Your task to perform on an android device: install app "Booking.com: Hotels and more" Image 0: 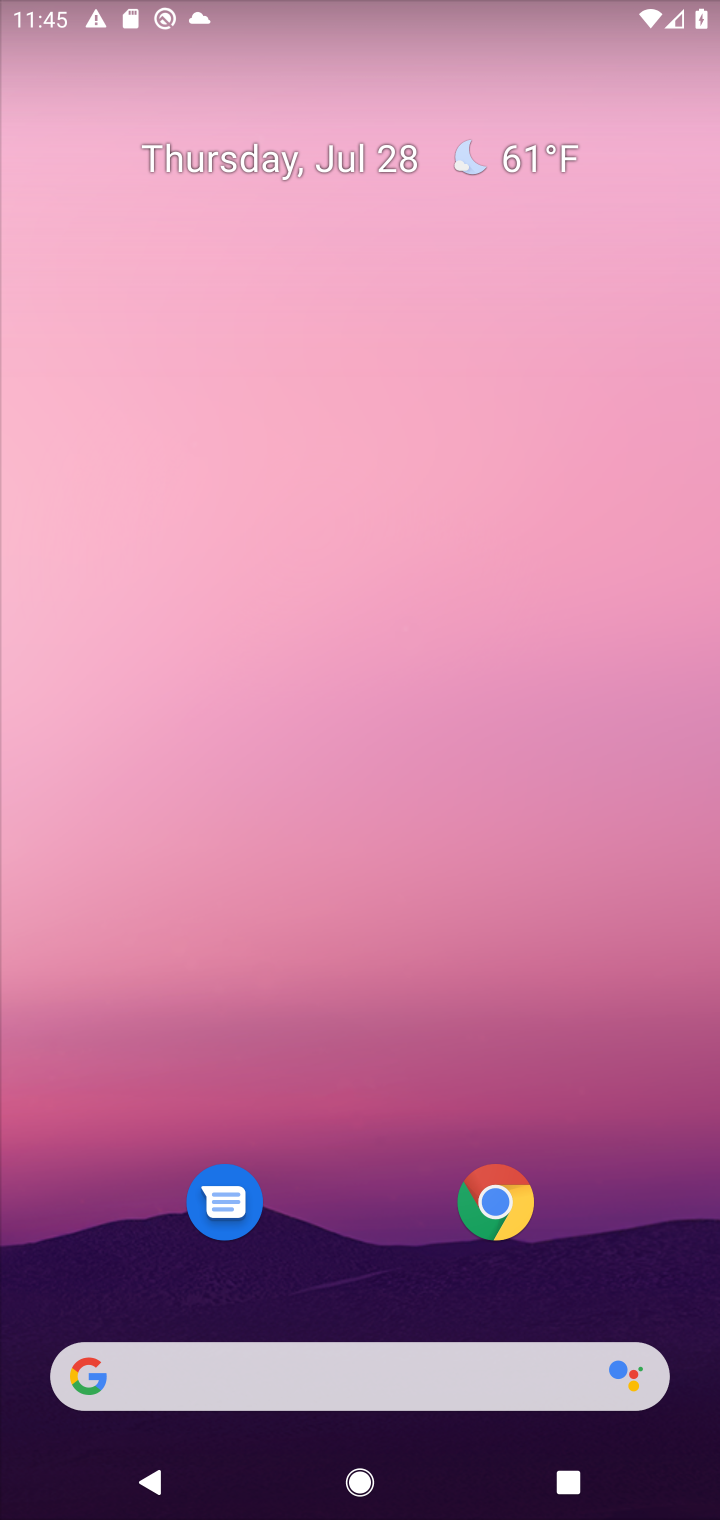
Step 0: click (401, 1364)
Your task to perform on an android device: install app "Booking.com: Hotels and more" Image 1: 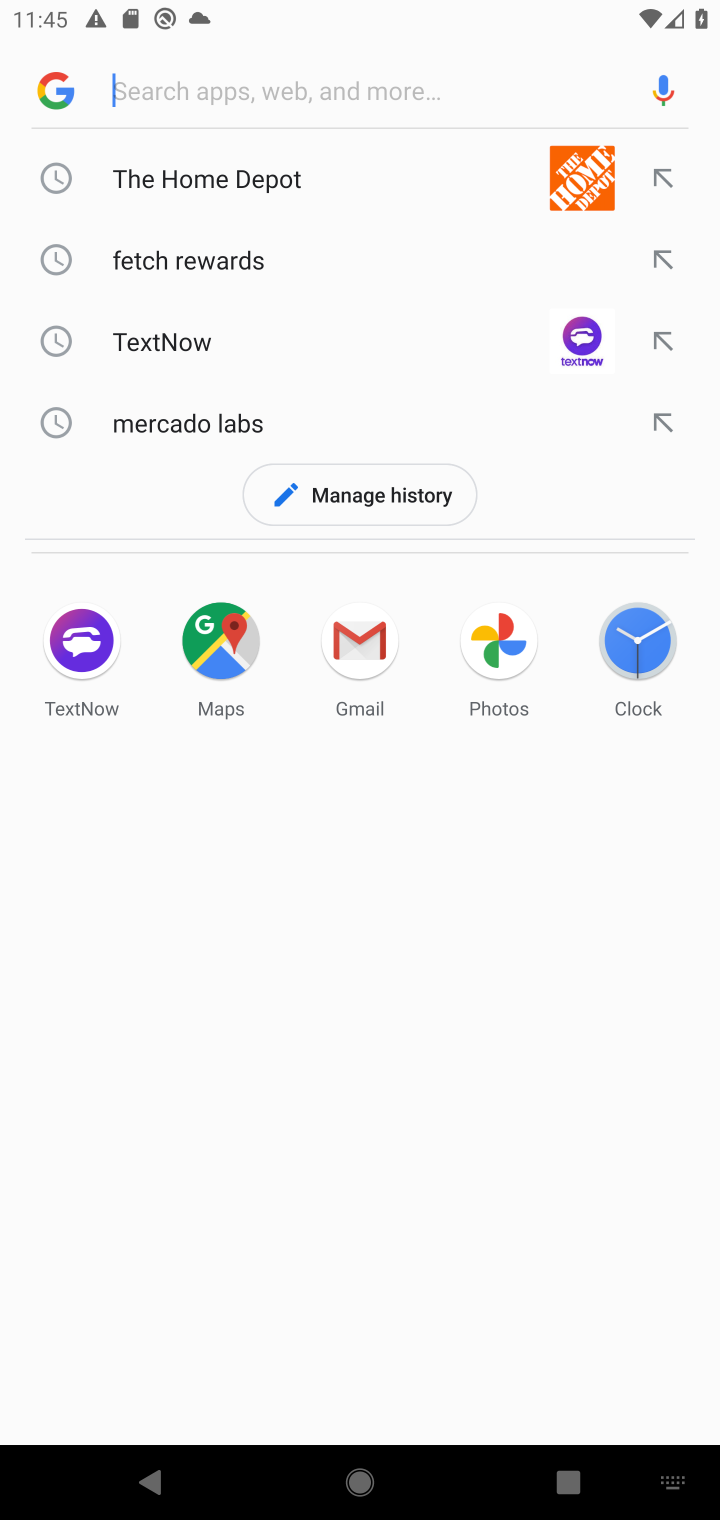
Step 1: type "booking"
Your task to perform on an android device: install app "Booking.com: Hotels and more" Image 2: 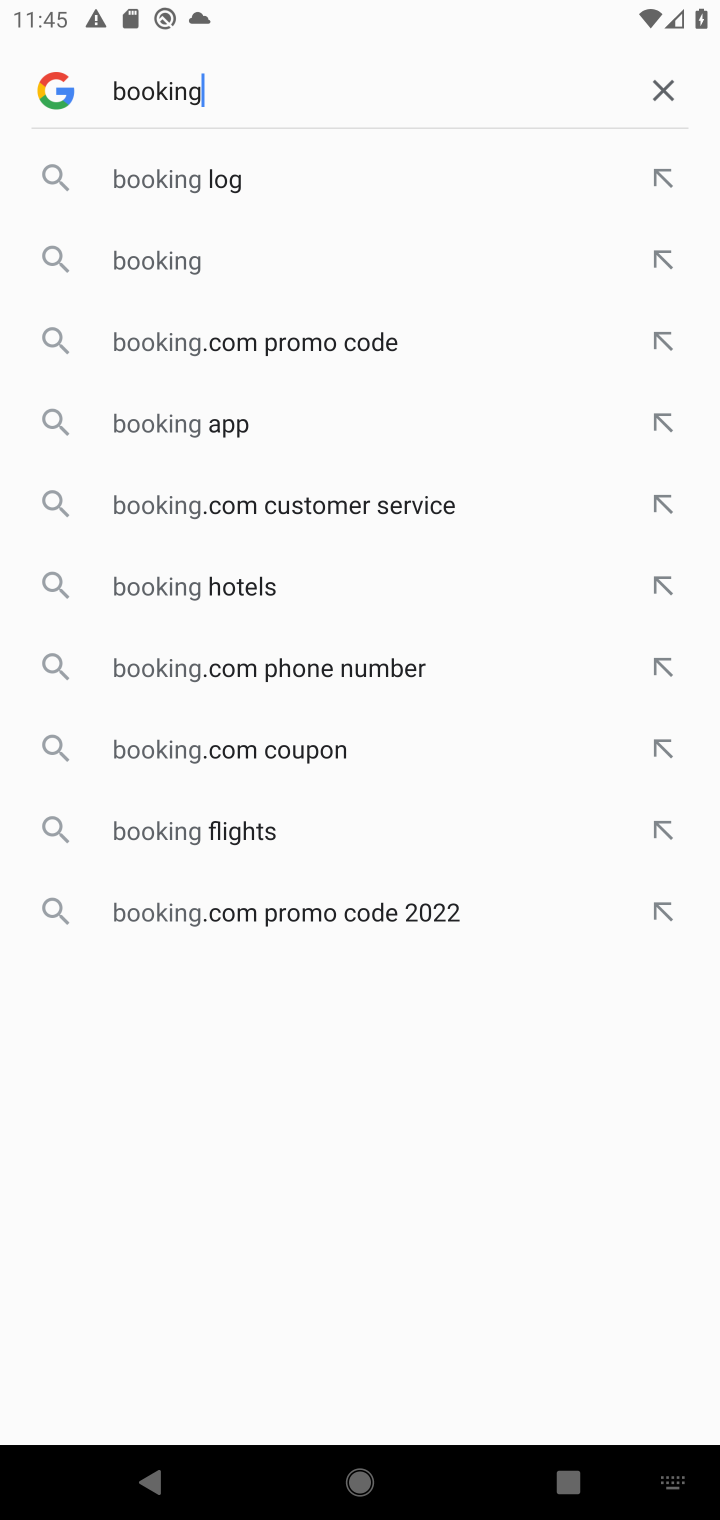
Step 2: click (659, 411)
Your task to perform on an android device: install app "Booking.com: Hotels and more" Image 3: 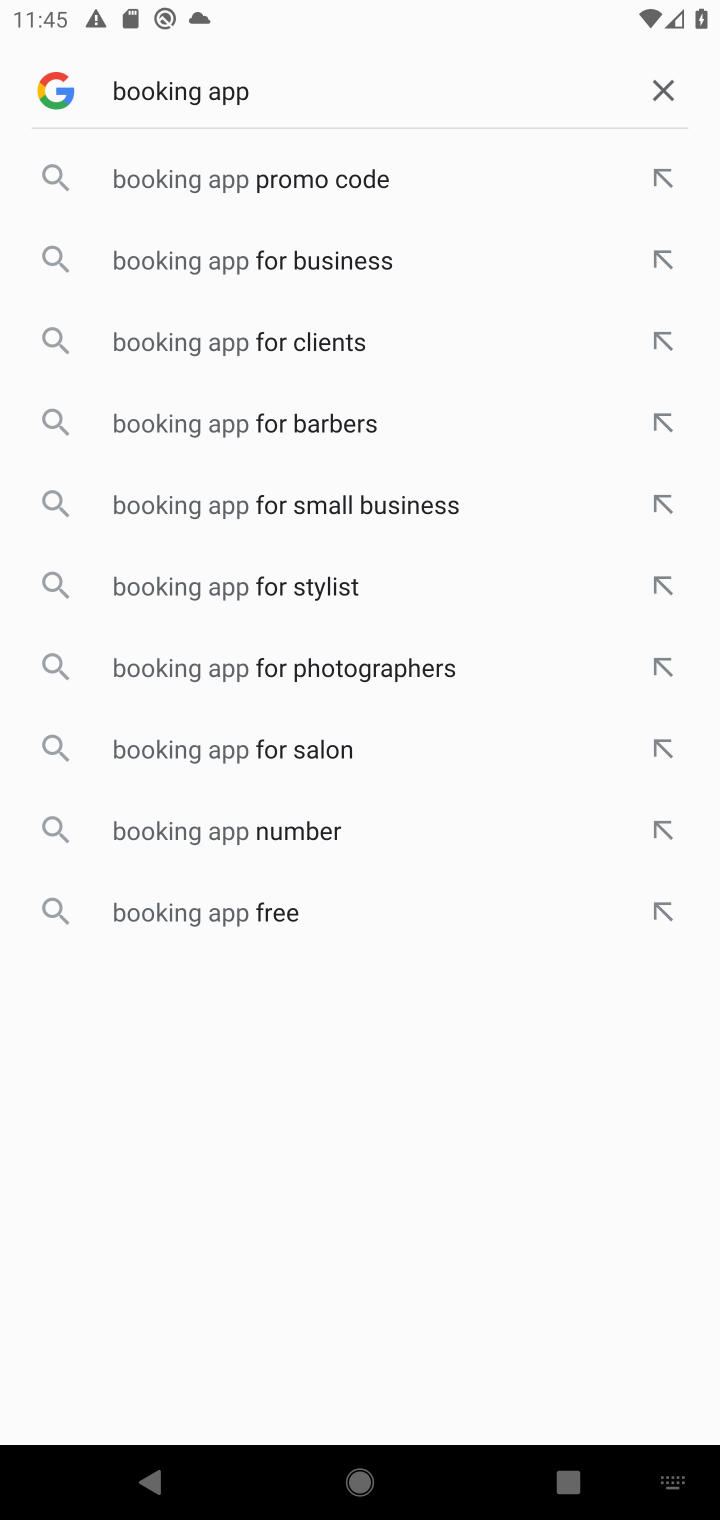
Step 3: click (490, 104)
Your task to perform on an android device: install app "Booking.com: Hotels and more" Image 4: 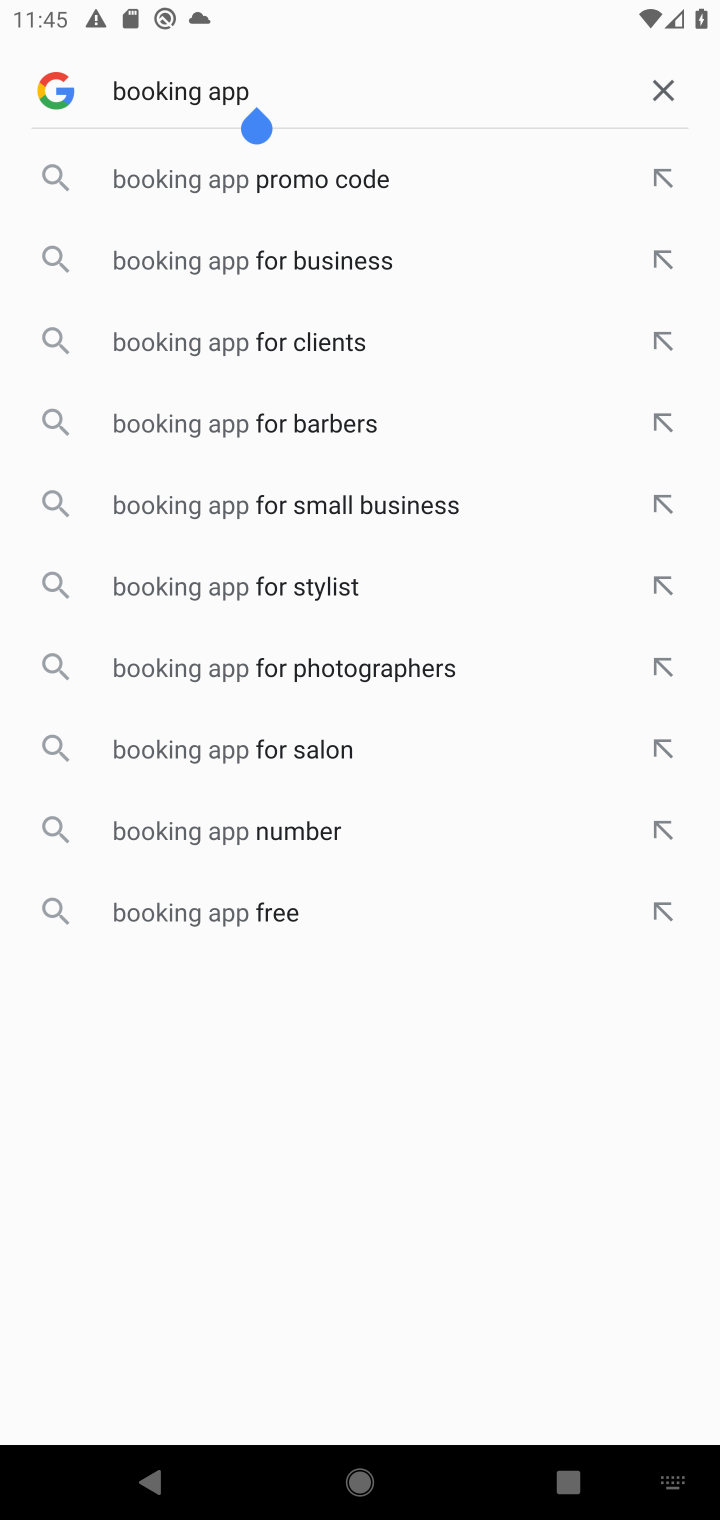
Step 4: click (268, 106)
Your task to perform on an android device: install app "Booking.com: Hotels and more" Image 5: 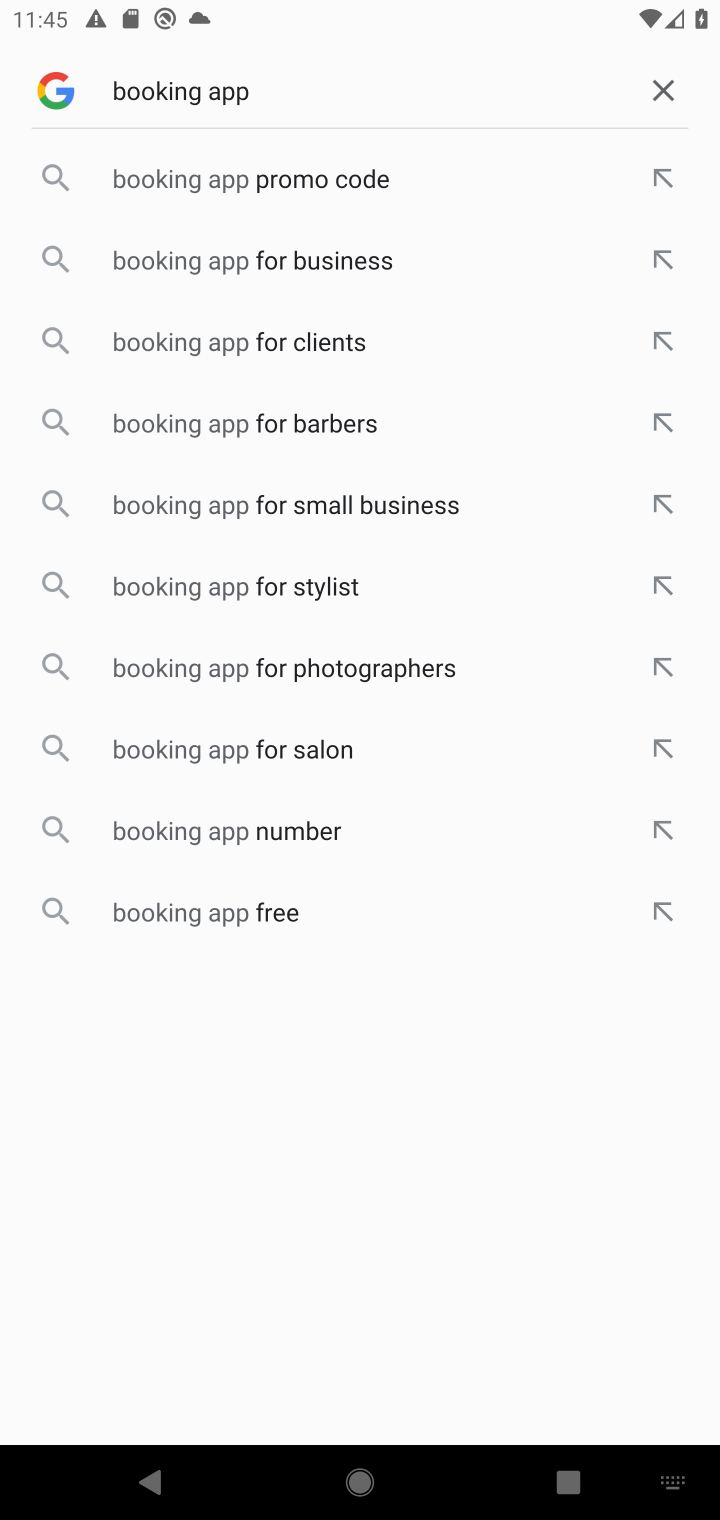
Step 5: click (268, 137)
Your task to perform on an android device: install app "Booking.com: Hotels and more" Image 6: 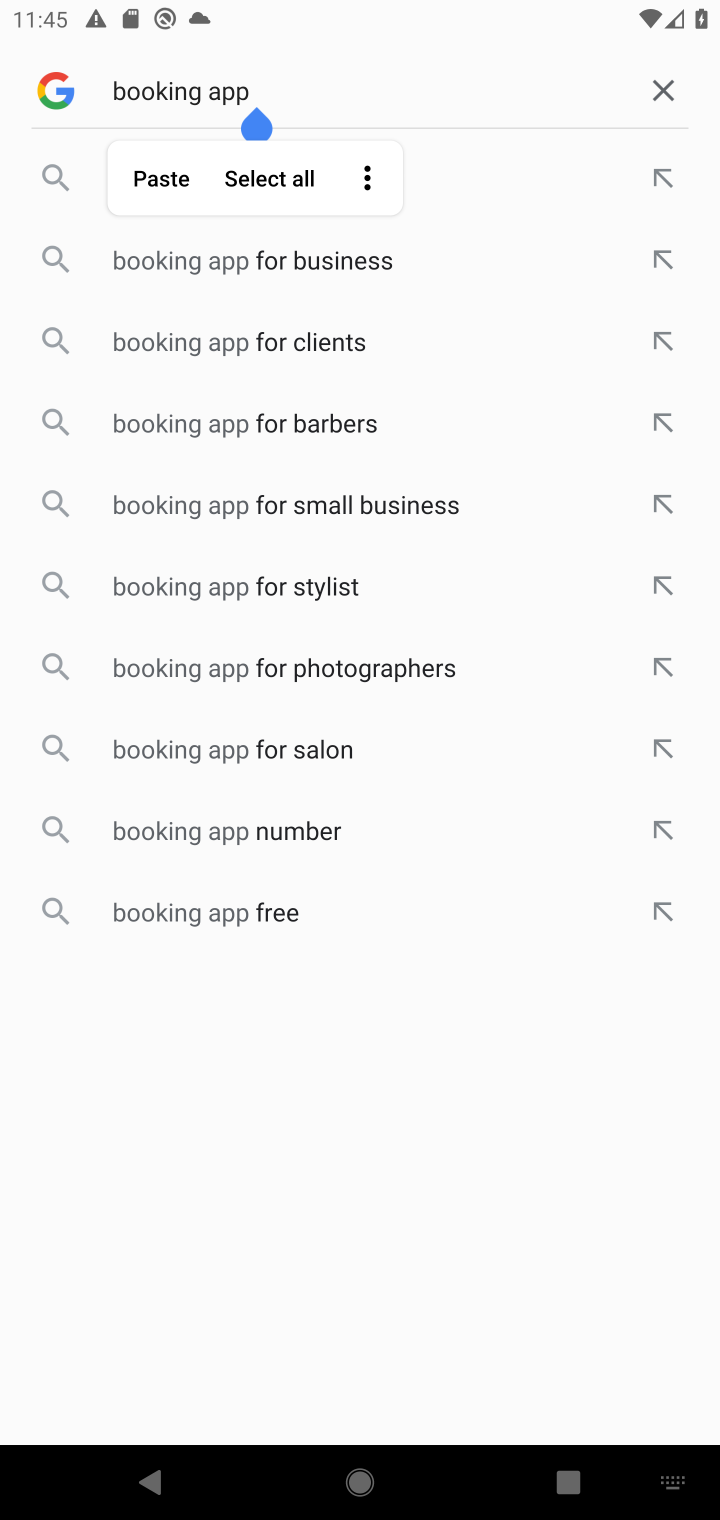
Step 6: click (481, 143)
Your task to perform on an android device: install app "Booking.com: Hotels and more" Image 7: 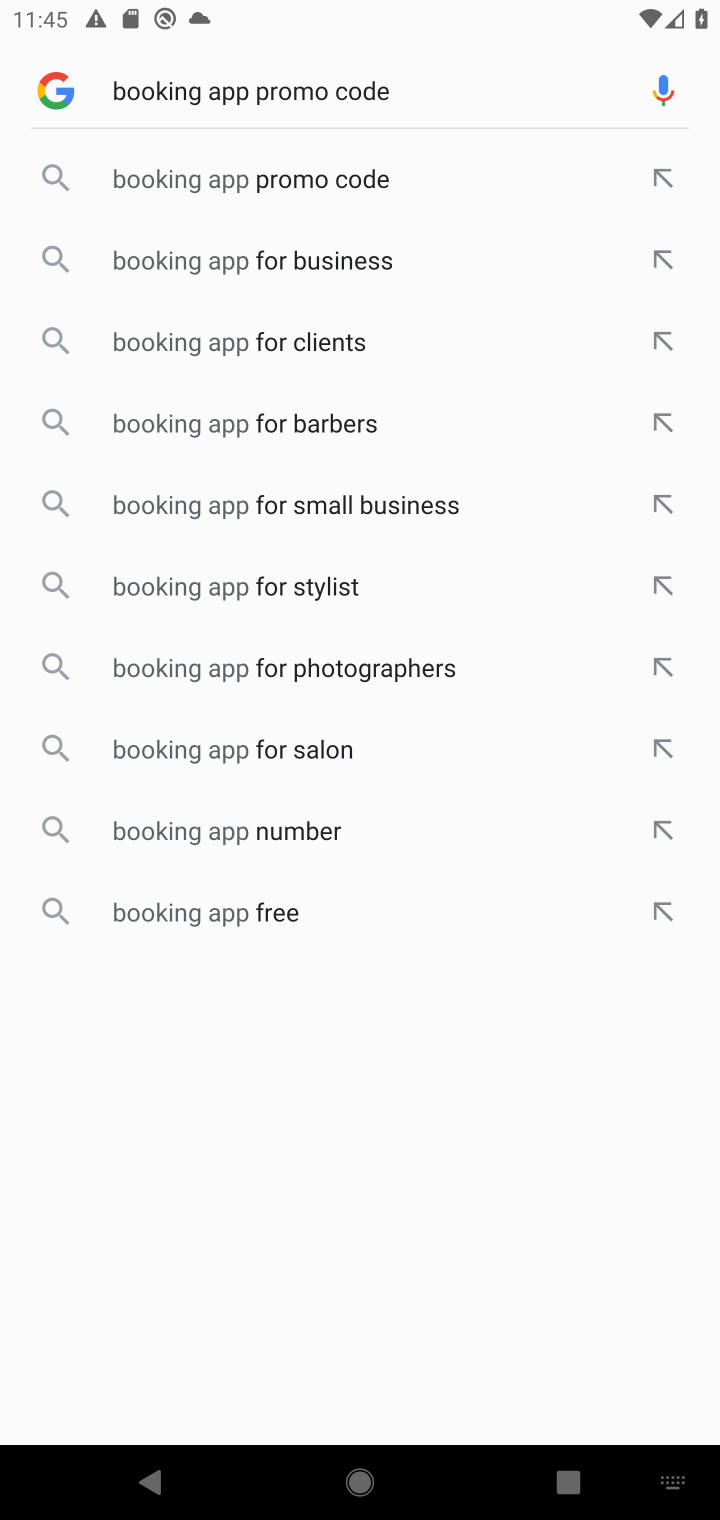
Step 7: click (654, 190)
Your task to perform on an android device: install app "Booking.com: Hotels and more" Image 8: 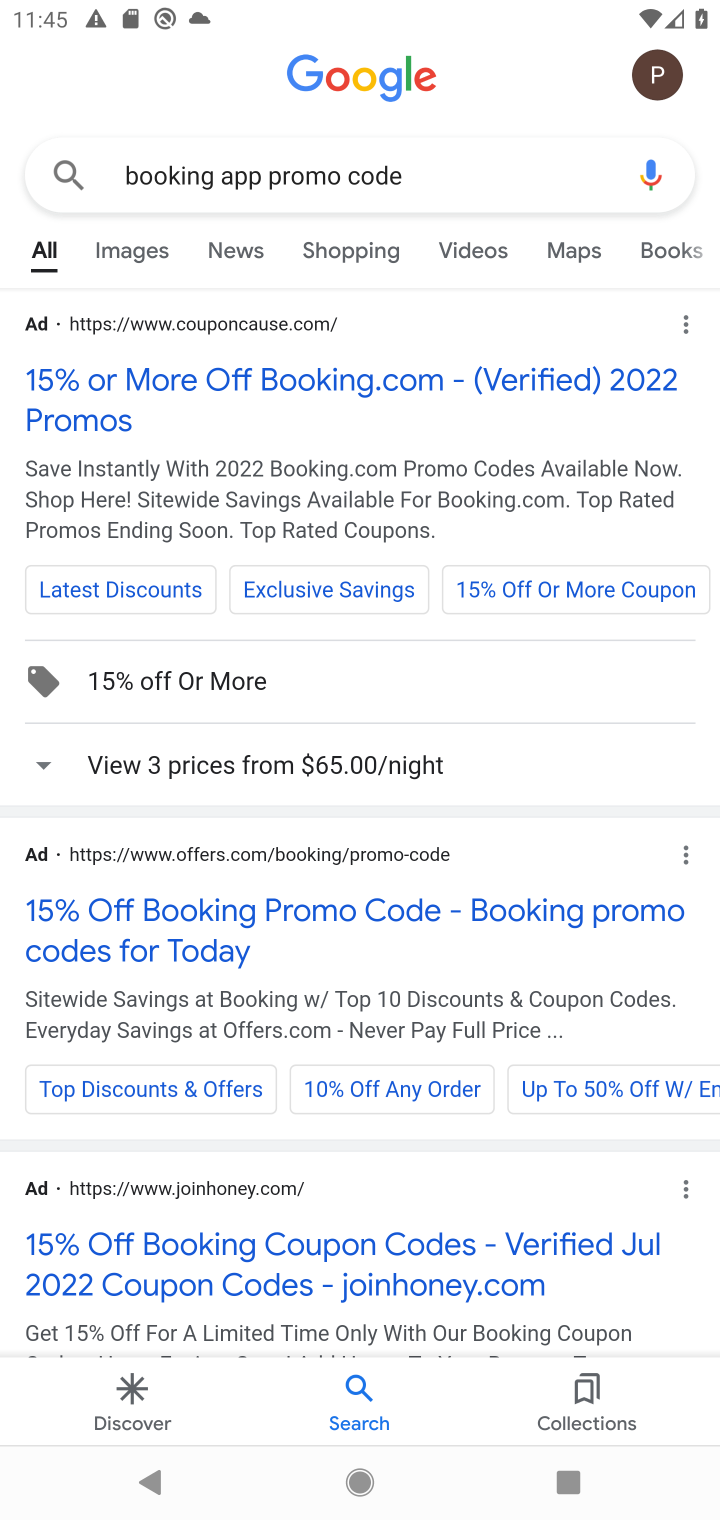
Step 8: task complete